Your task to perform on an android device: Search for Italian restaurants on Maps Image 0: 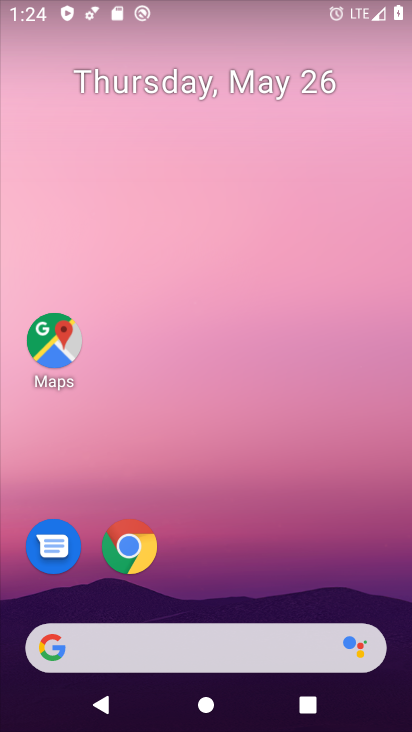
Step 0: drag from (377, 482) to (315, 327)
Your task to perform on an android device: Search for Italian restaurants on Maps Image 1: 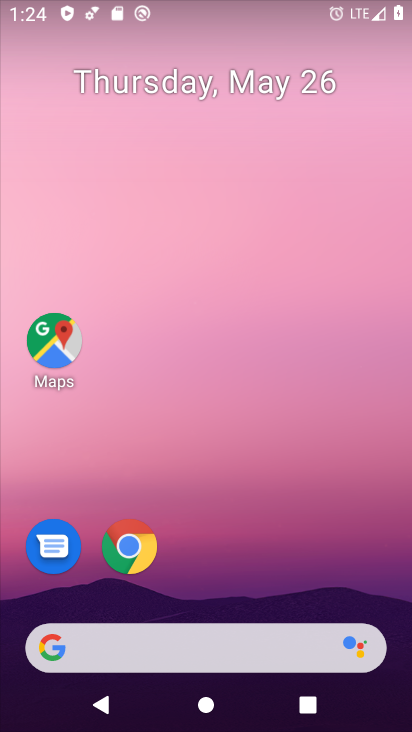
Step 1: drag from (365, 351) to (263, 25)
Your task to perform on an android device: Search for Italian restaurants on Maps Image 2: 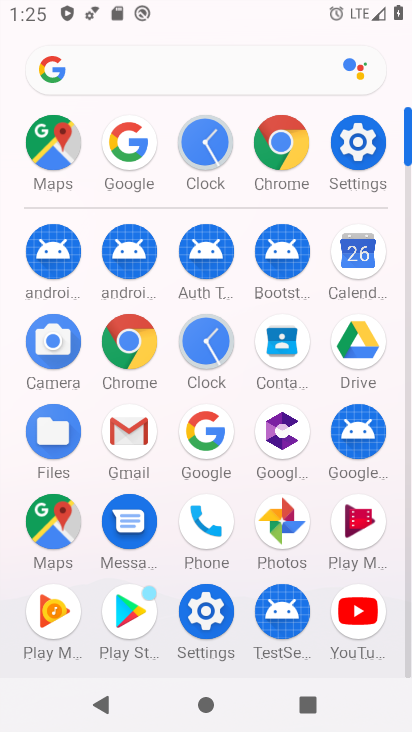
Step 2: click (47, 526)
Your task to perform on an android device: Search for Italian restaurants on Maps Image 3: 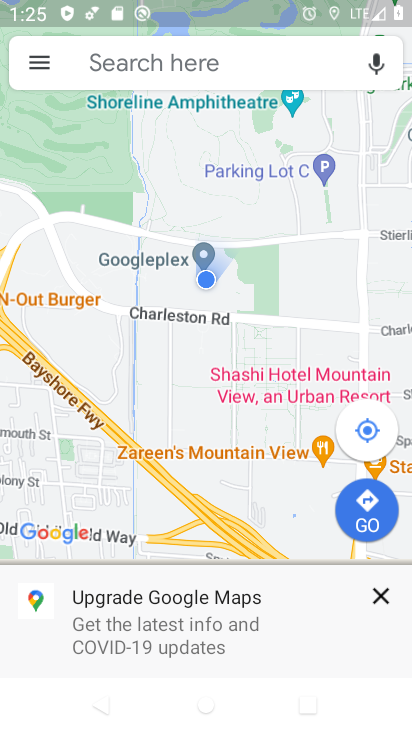
Step 3: click (221, 63)
Your task to perform on an android device: Search for Italian restaurants on Maps Image 4: 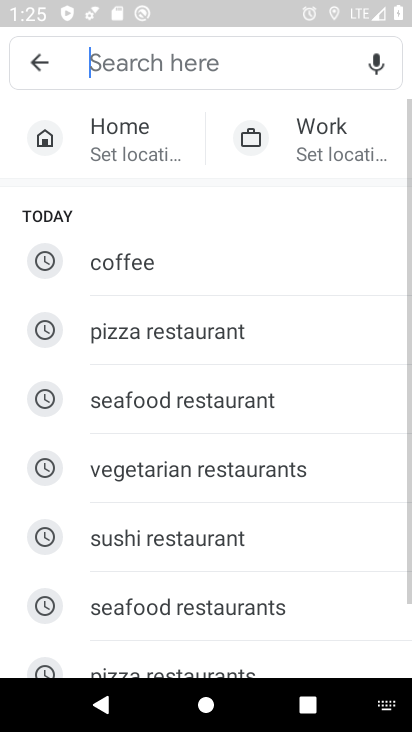
Step 4: drag from (225, 606) to (194, 204)
Your task to perform on an android device: Search for Italian restaurants on Maps Image 5: 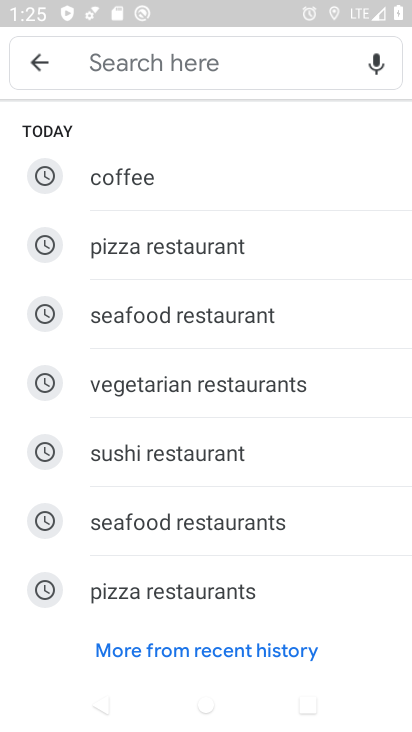
Step 5: click (182, 645)
Your task to perform on an android device: Search for Italian restaurants on Maps Image 6: 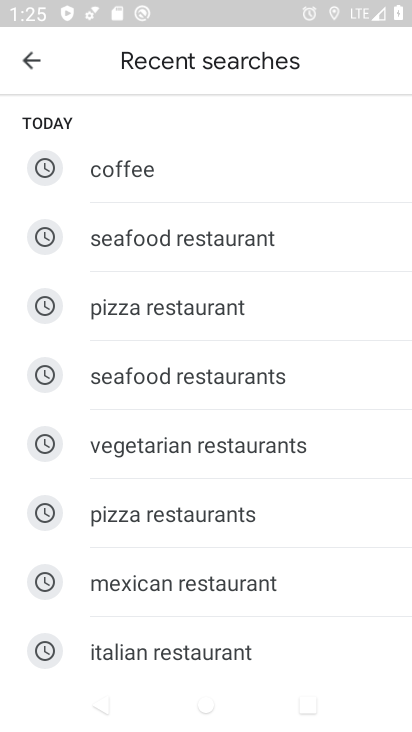
Step 6: drag from (182, 645) to (182, 111)
Your task to perform on an android device: Search for Italian restaurants on Maps Image 7: 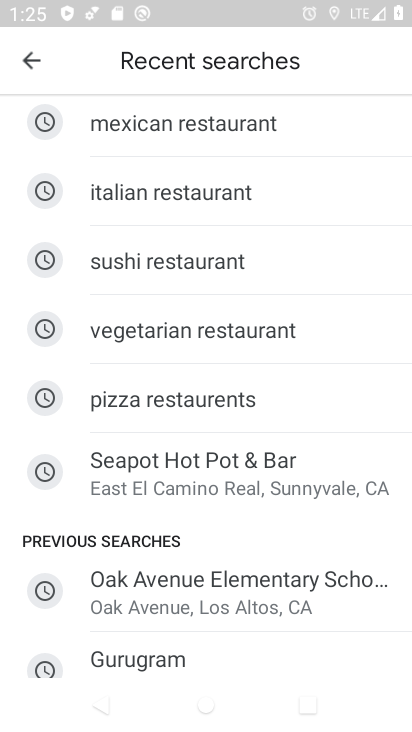
Step 7: drag from (169, 376) to (140, 683)
Your task to perform on an android device: Search for Italian restaurants on Maps Image 8: 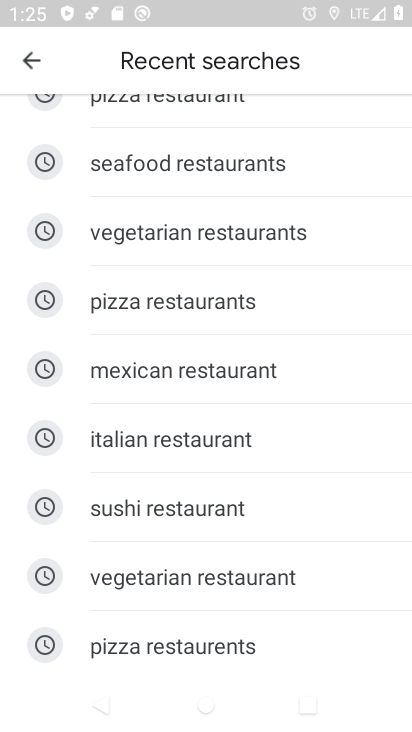
Step 8: drag from (233, 311) to (232, 619)
Your task to perform on an android device: Search for Italian restaurants on Maps Image 9: 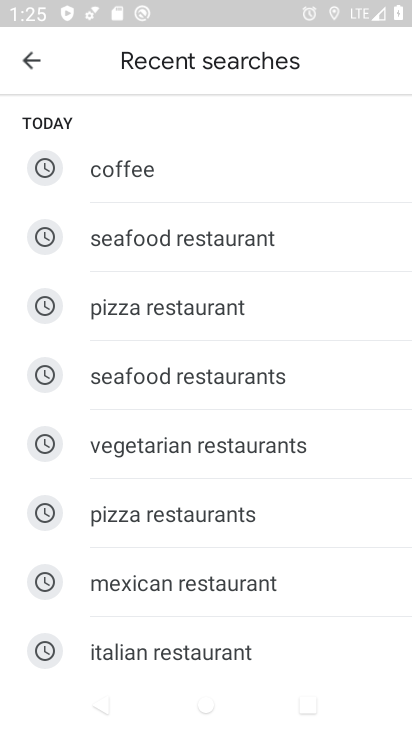
Step 9: click (222, 635)
Your task to perform on an android device: Search for Italian restaurants on Maps Image 10: 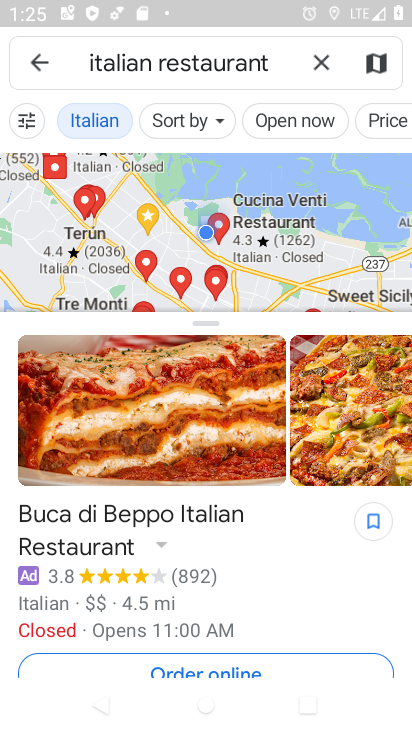
Step 10: task complete